Your task to perform on an android device: Open Android settings Image 0: 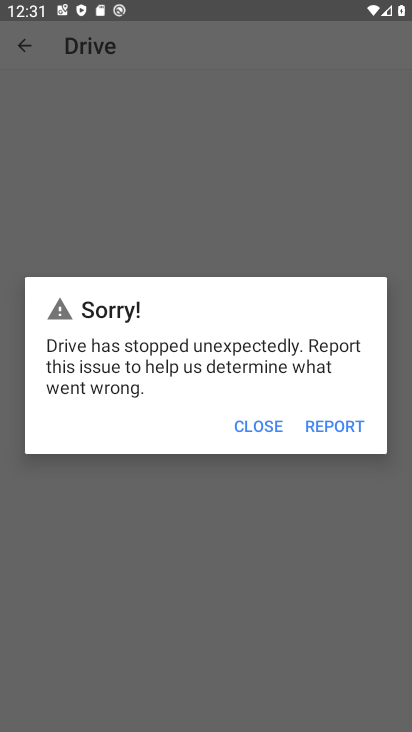
Step 0: drag from (222, 625) to (272, 164)
Your task to perform on an android device: Open Android settings Image 1: 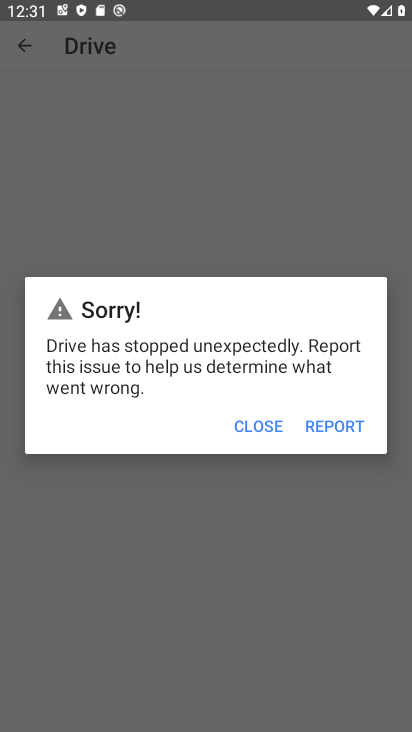
Step 1: press home button
Your task to perform on an android device: Open Android settings Image 2: 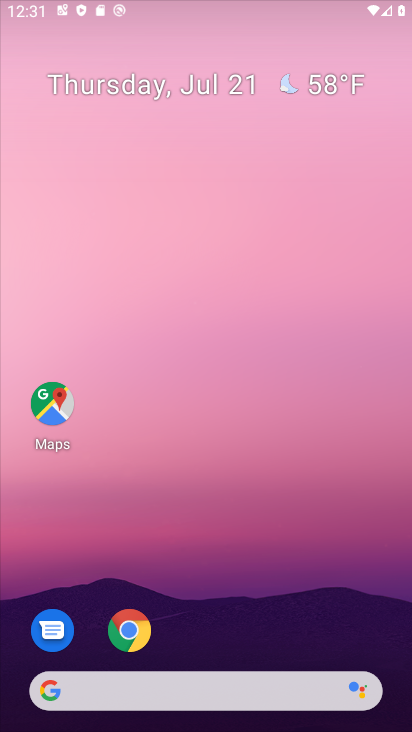
Step 2: drag from (227, 513) to (266, 67)
Your task to perform on an android device: Open Android settings Image 3: 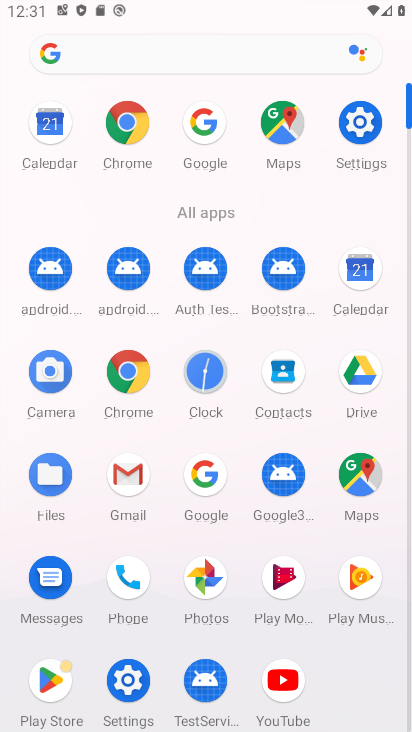
Step 3: click (361, 119)
Your task to perform on an android device: Open Android settings Image 4: 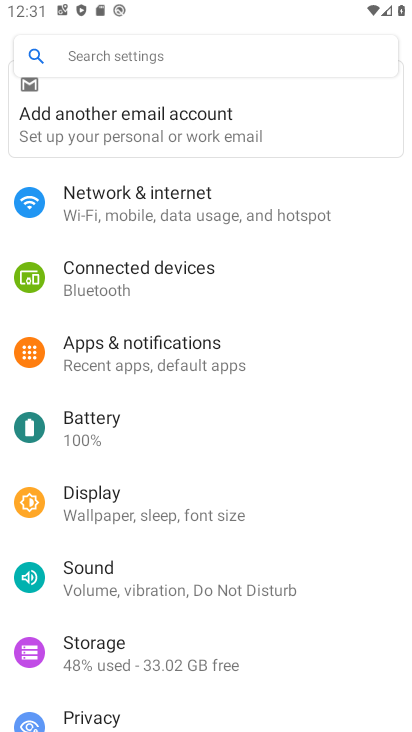
Step 4: task complete